Your task to perform on an android device: turn notification dots off Image 0: 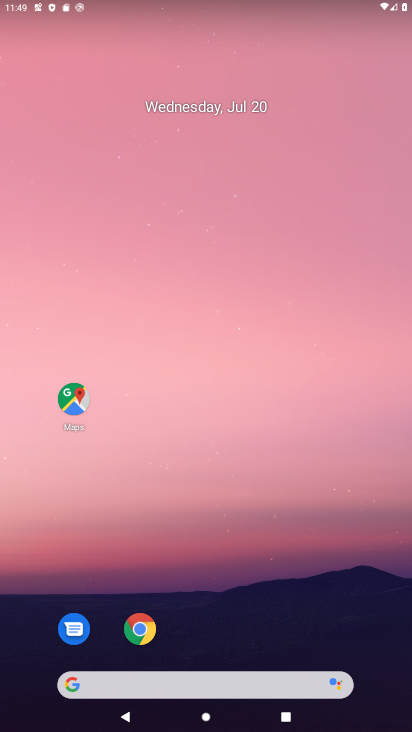
Step 0: drag from (176, 627) to (241, 204)
Your task to perform on an android device: turn notification dots off Image 1: 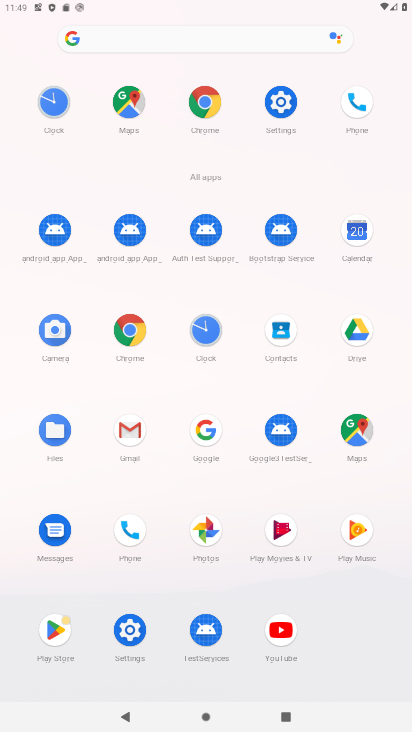
Step 1: click (272, 99)
Your task to perform on an android device: turn notification dots off Image 2: 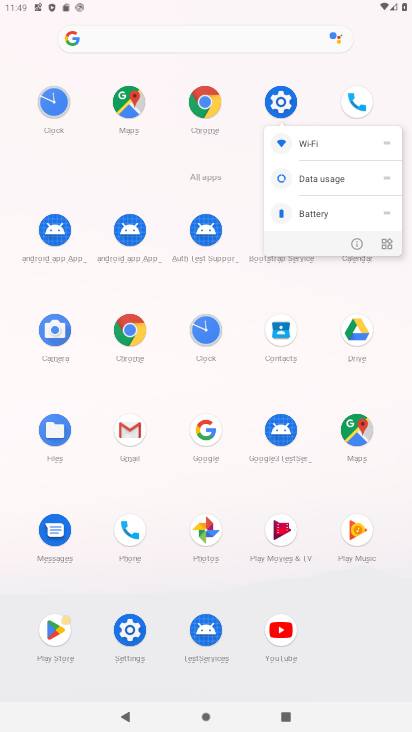
Step 2: click (280, 106)
Your task to perform on an android device: turn notification dots off Image 3: 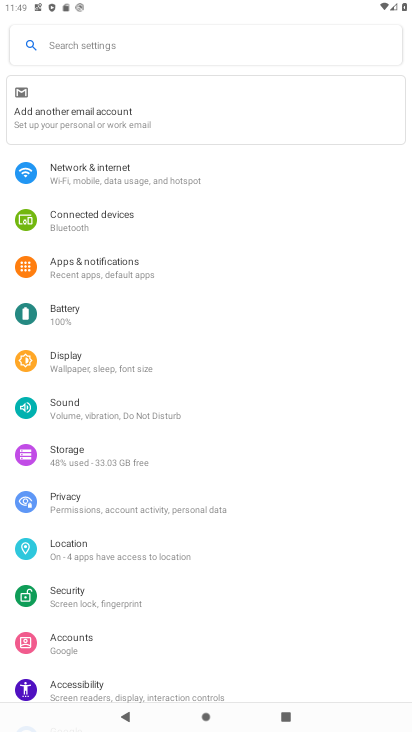
Step 3: click (132, 40)
Your task to perform on an android device: turn notification dots off Image 4: 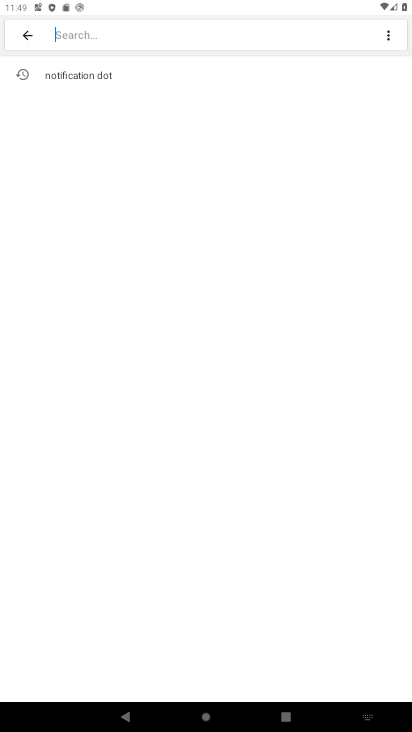
Step 4: click (106, 77)
Your task to perform on an android device: turn notification dots off Image 5: 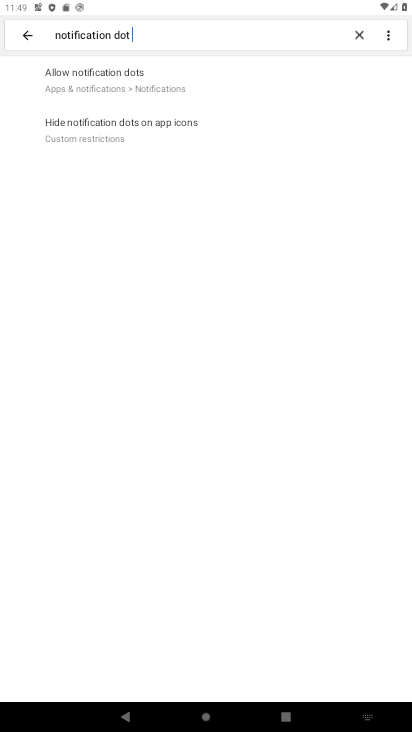
Step 5: click (124, 79)
Your task to perform on an android device: turn notification dots off Image 6: 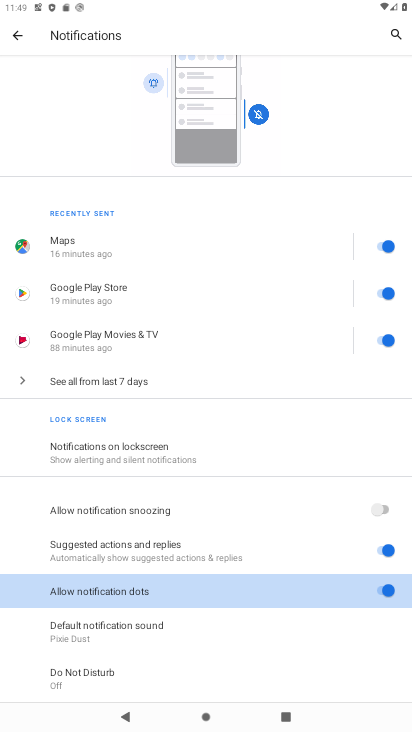
Step 6: click (390, 584)
Your task to perform on an android device: turn notification dots off Image 7: 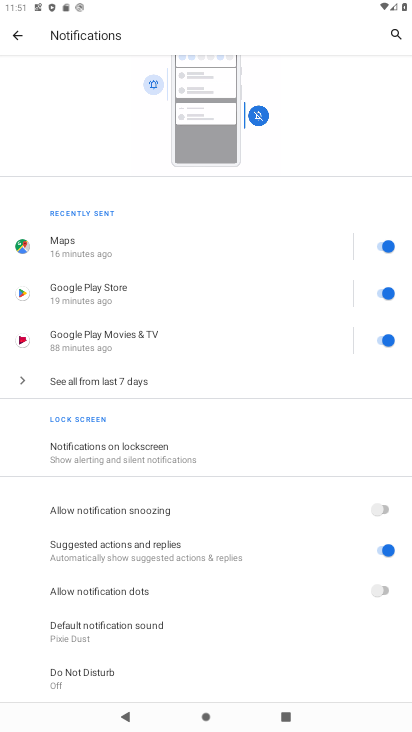
Step 7: task complete